Your task to perform on an android device: check out phone information Image 0: 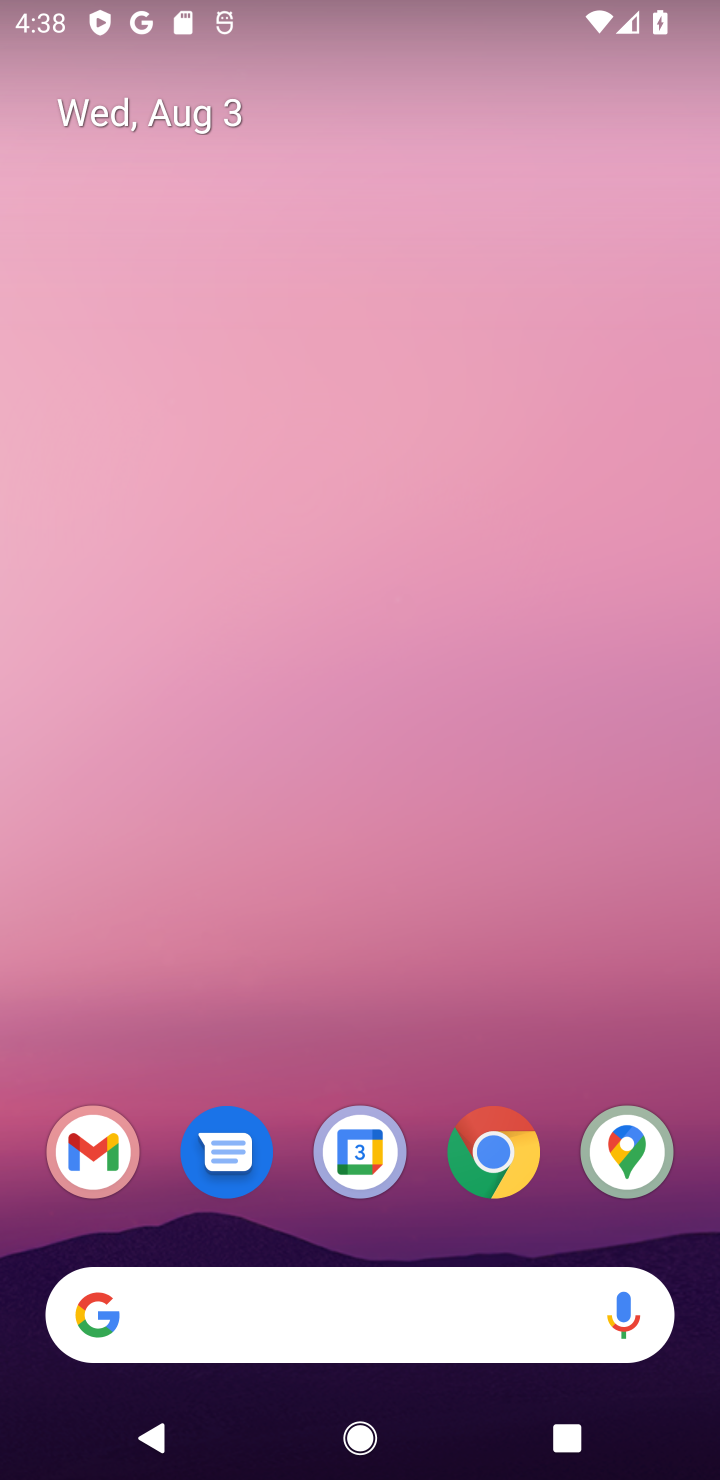
Step 0: drag from (343, 1296) to (312, 254)
Your task to perform on an android device: check out phone information Image 1: 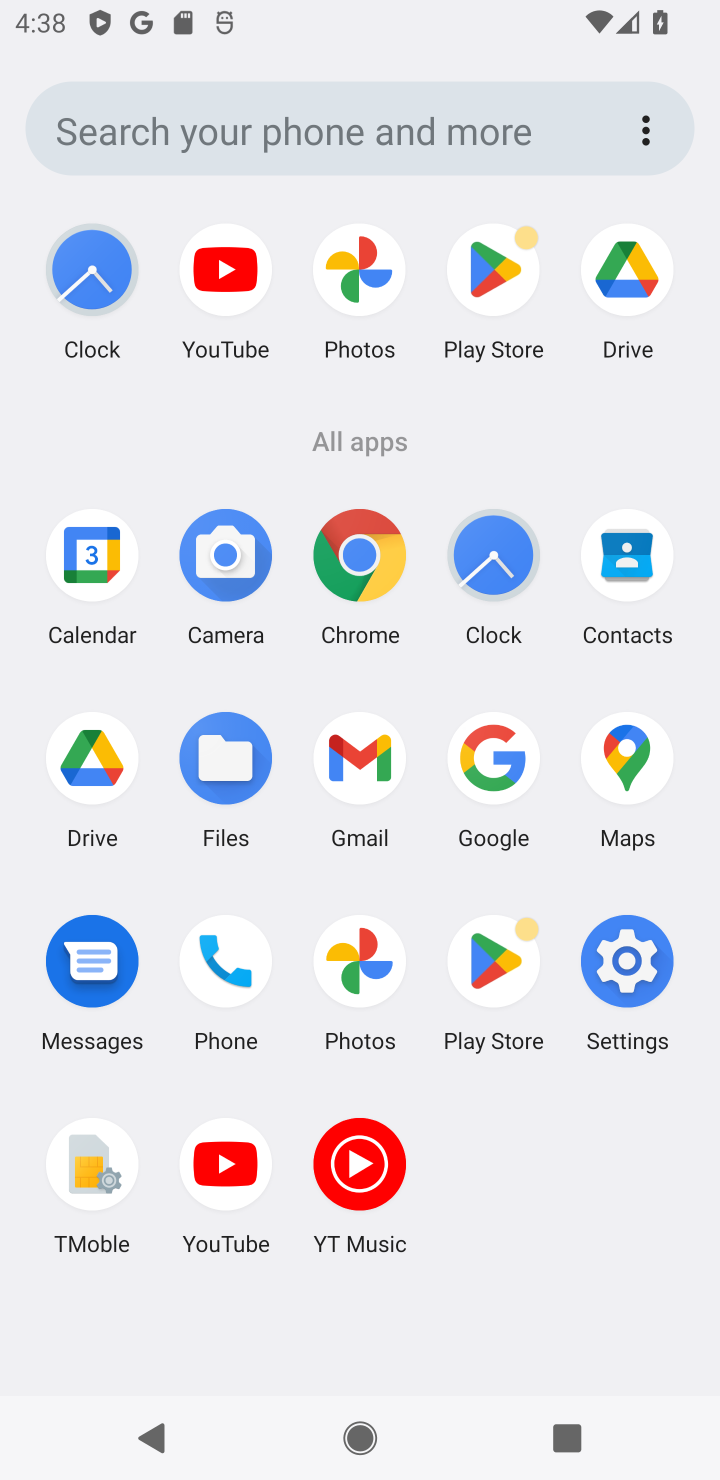
Step 1: click (629, 975)
Your task to perform on an android device: check out phone information Image 2: 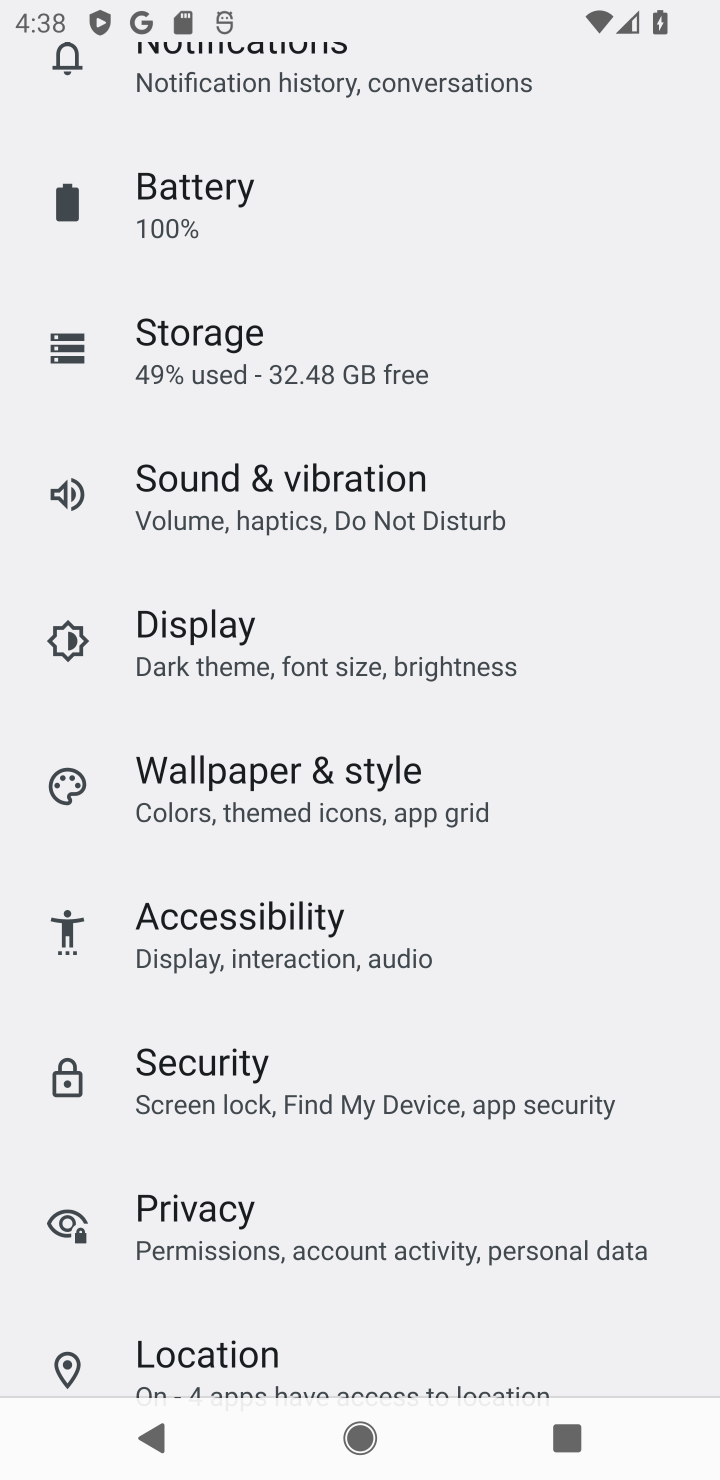
Step 2: drag from (376, 1135) to (396, 491)
Your task to perform on an android device: check out phone information Image 3: 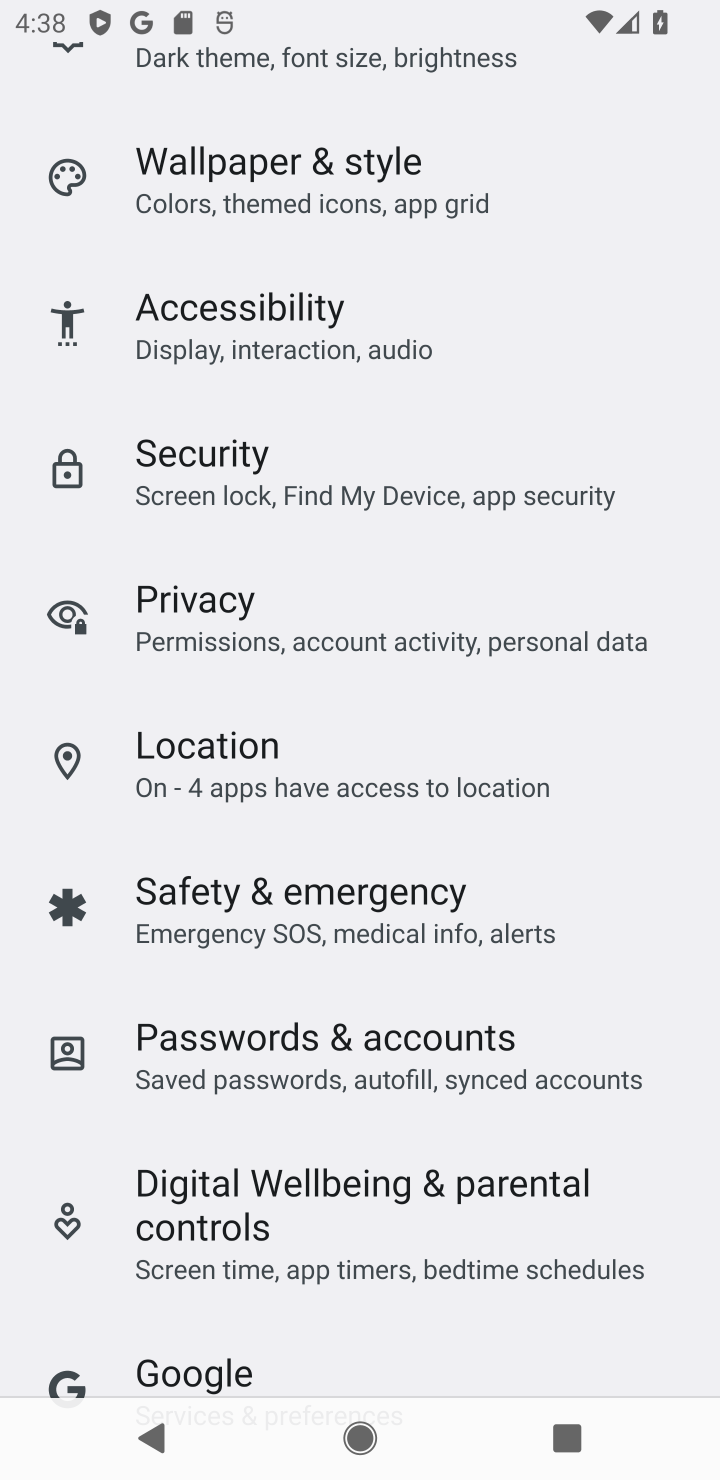
Step 3: drag from (355, 1155) to (350, 547)
Your task to perform on an android device: check out phone information Image 4: 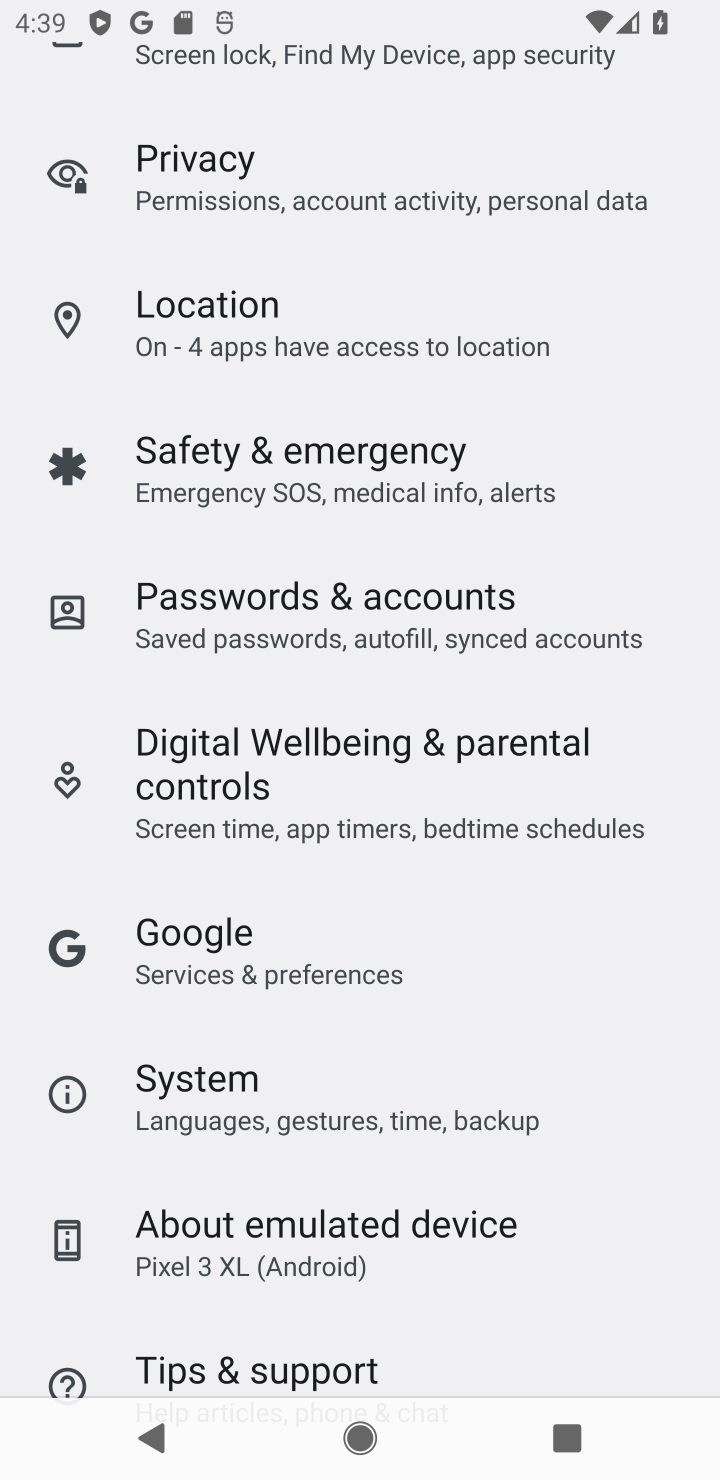
Step 4: drag from (338, 1202) to (324, 654)
Your task to perform on an android device: check out phone information Image 5: 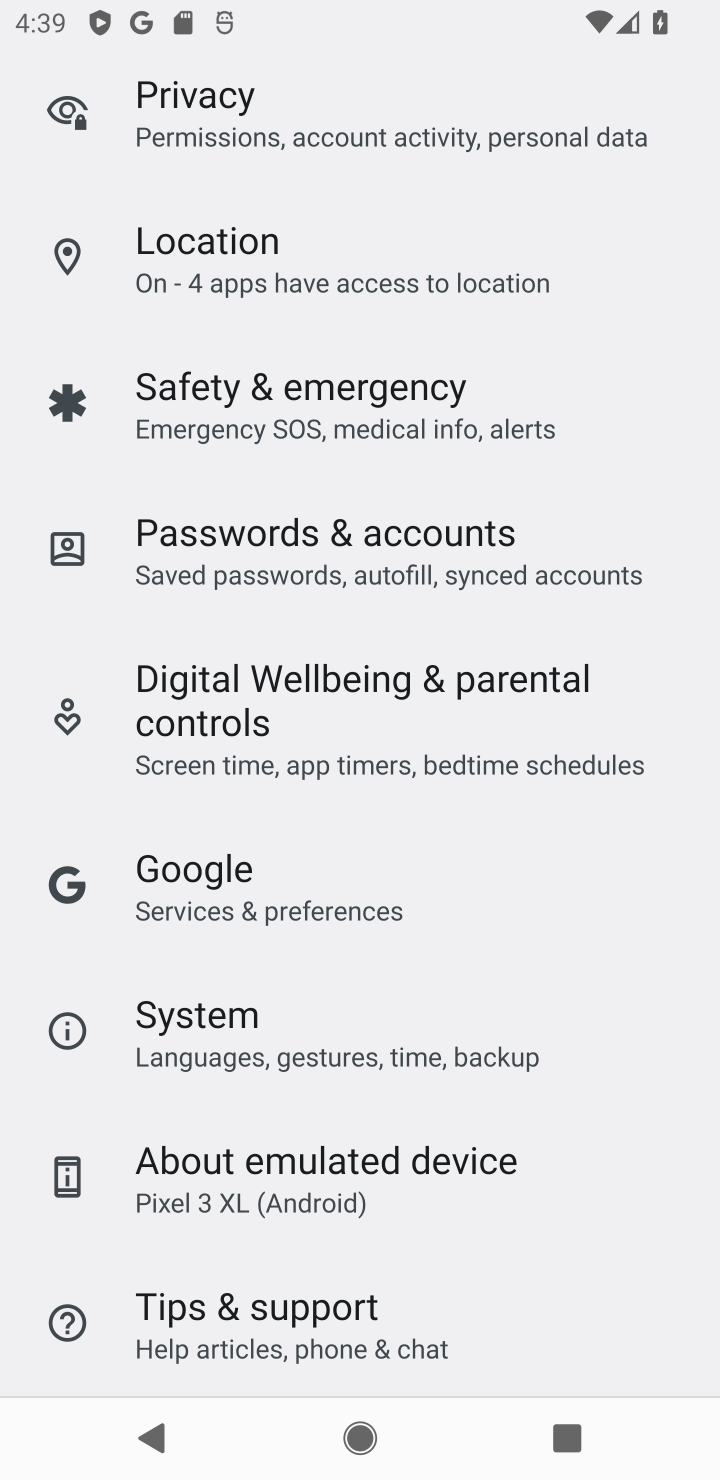
Step 5: click (486, 1162)
Your task to perform on an android device: check out phone information Image 6: 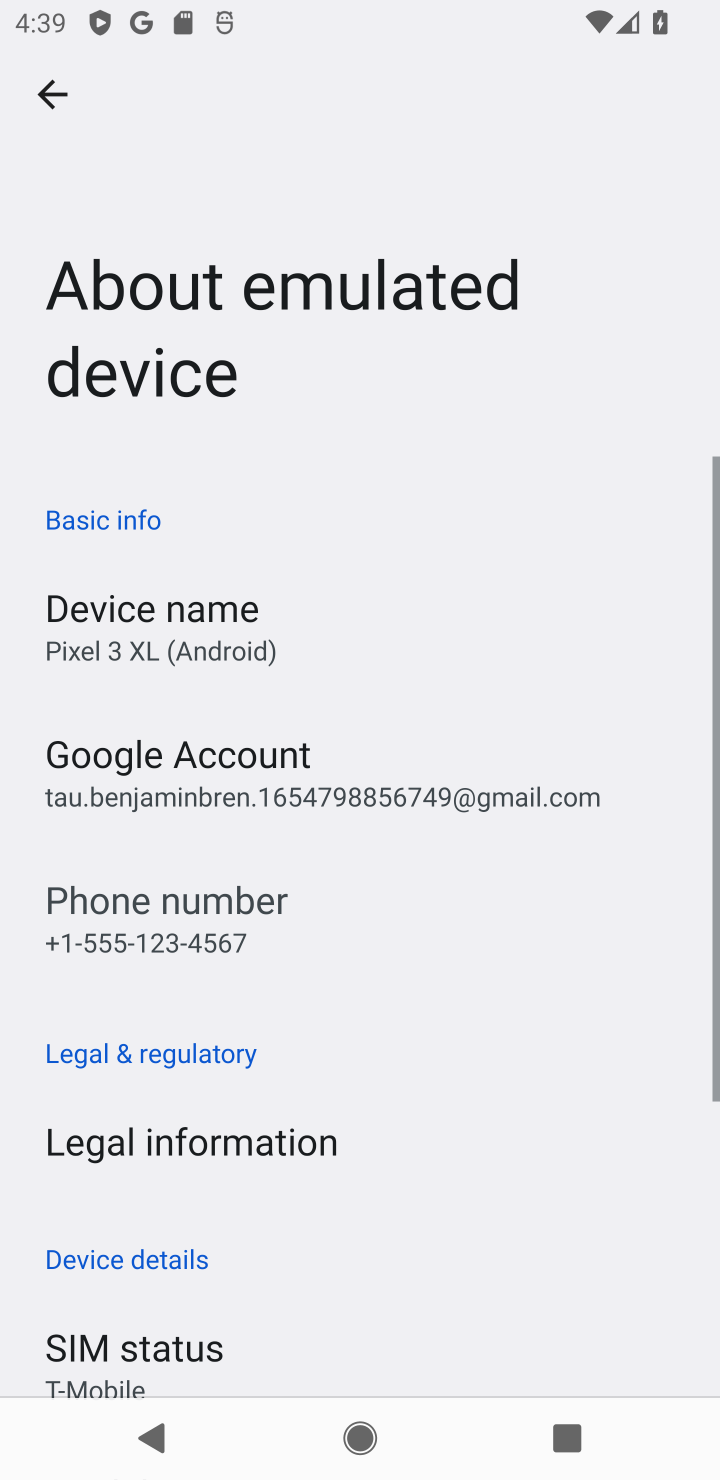
Step 6: task complete